Your task to perform on an android device: Open privacy settings Image 0: 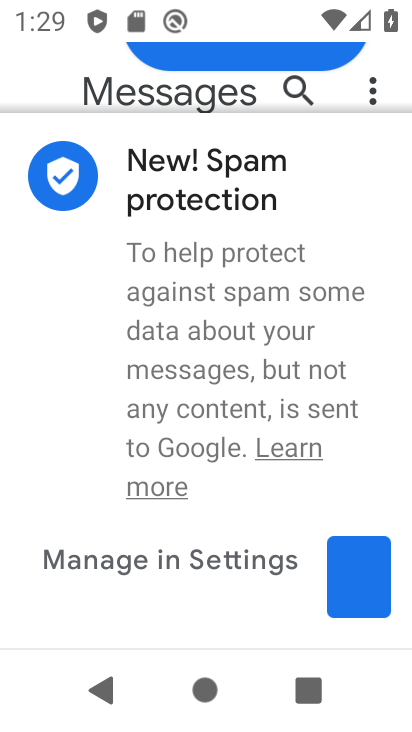
Step 0: press home button
Your task to perform on an android device: Open privacy settings Image 1: 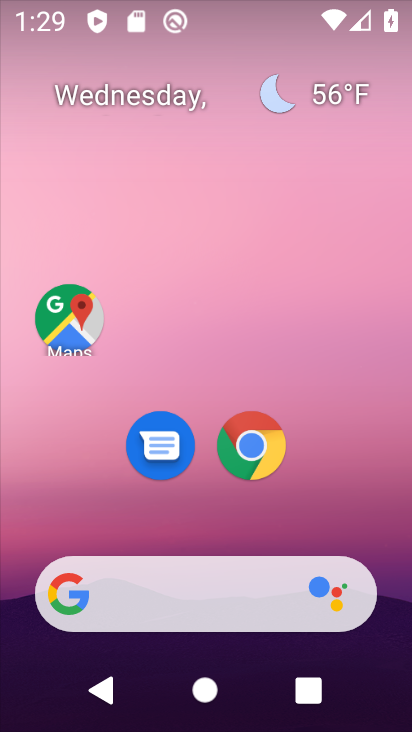
Step 1: drag from (202, 537) to (198, 58)
Your task to perform on an android device: Open privacy settings Image 2: 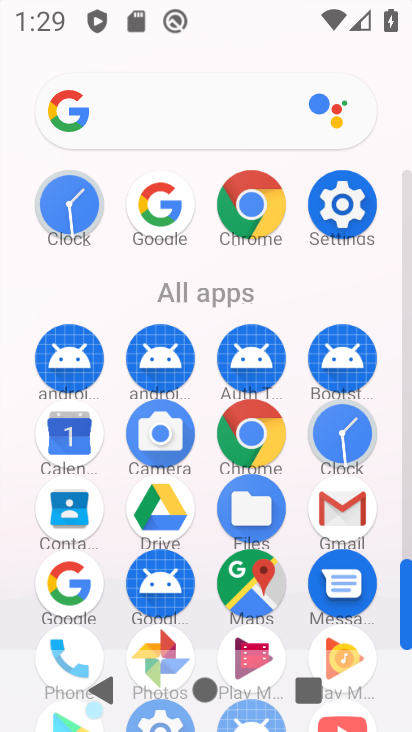
Step 2: click (336, 210)
Your task to perform on an android device: Open privacy settings Image 3: 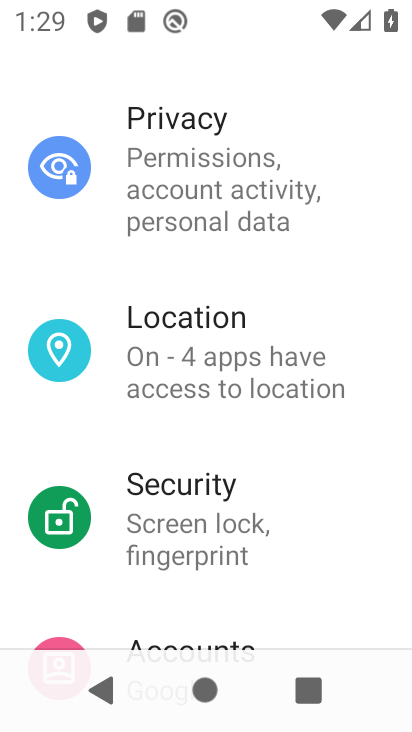
Step 3: click (301, 487)
Your task to perform on an android device: Open privacy settings Image 4: 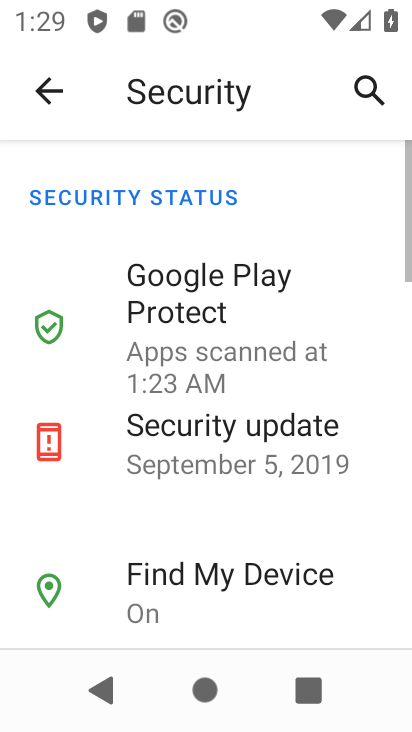
Step 4: click (58, 103)
Your task to perform on an android device: Open privacy settings Image 5: 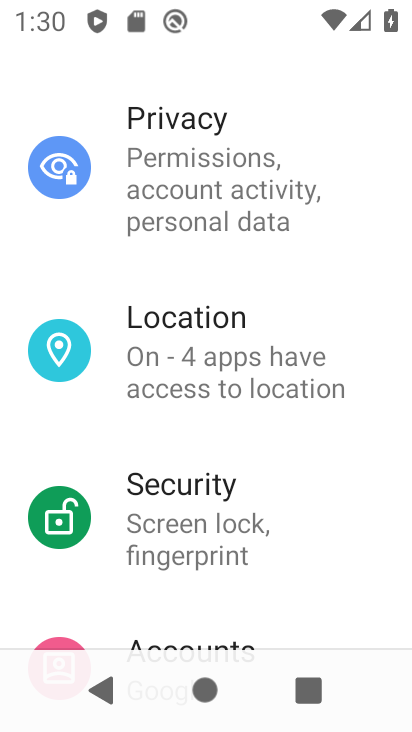
Step 5: click (203, 205)
Your task to perform on an android device: Open privacy settings Image 6: 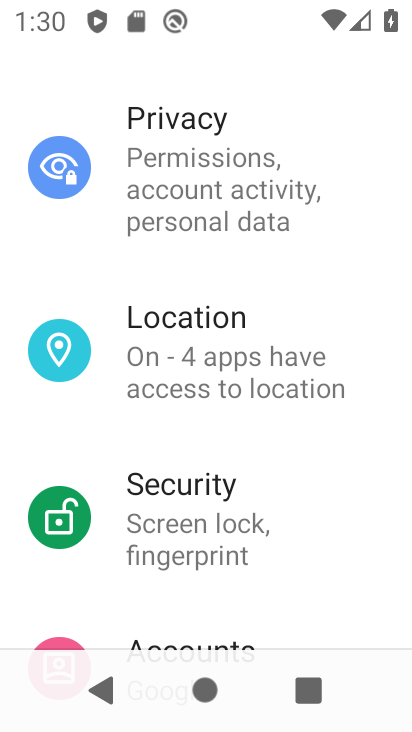
Step 6: task complete